Your task to perform on an android device: Do I have any events this weekend? Image 0: 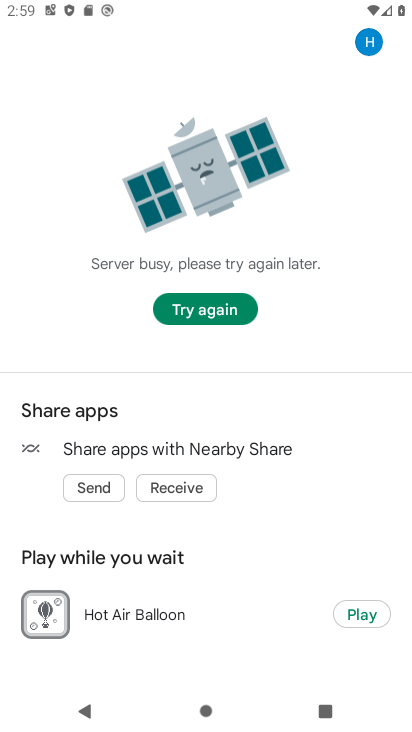
Step 0: press home button
Your task to perform on an android device: Do I have any events this weekend? Image 1: 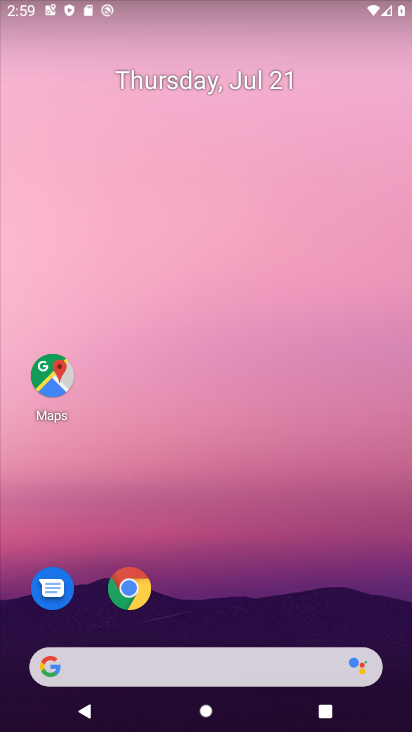
Step 1: drag from (215, 552) to (170, 95)
Your task to perform on an android device: Do I have any events this weekend? Image 2: 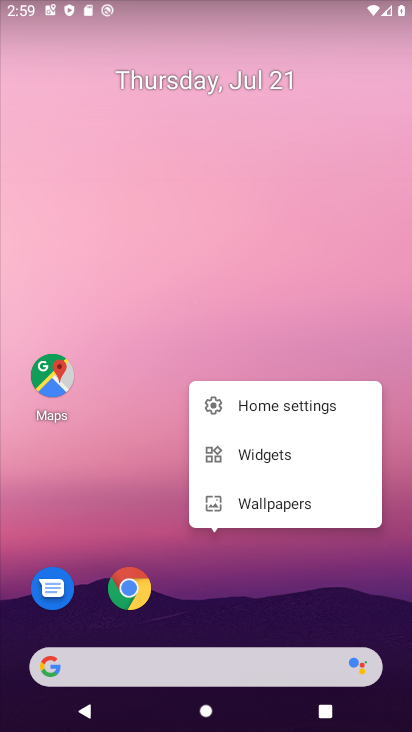
Step 2: click (134, 301)
Your task to perform on an android device: Do I have any events this weekend? Image 3: 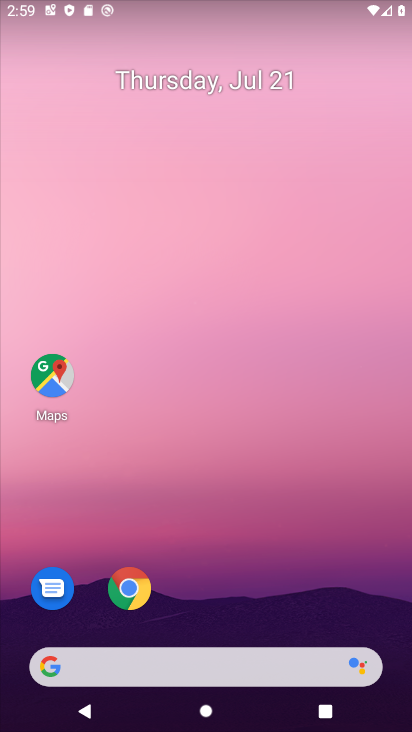
Step 3: drag from (232, 561) to (266, 93)
Your task to perform on an android device: Do I have any events this weekend? Image 4: 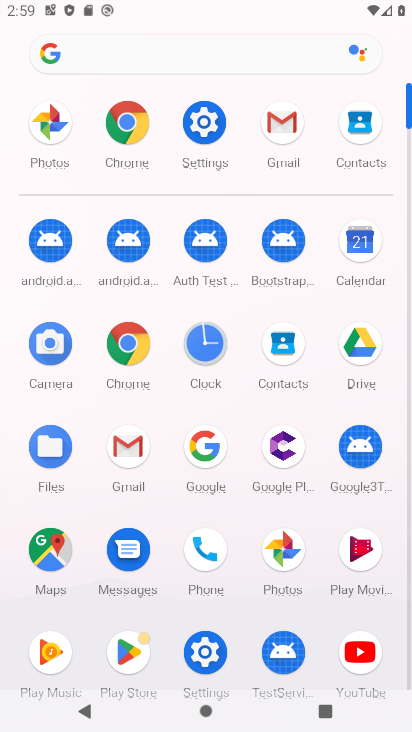
Step 4: click (364, 239)
Your task to perform on an android device: Do I have any events this weekend? Image 5: 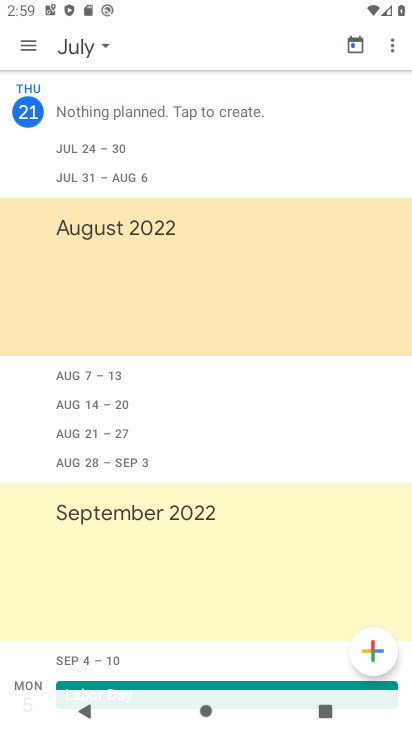
Step 5: click (30, 41)
Your task to perform on an android device: Do I have any events this weekend? Image 6: 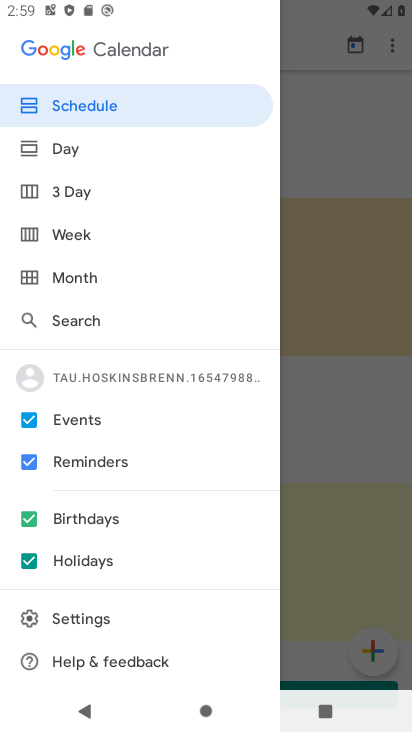
Step 6: click (79, 231)
Your task to perform on an android device: Do I have any events this weekend? Image 7: 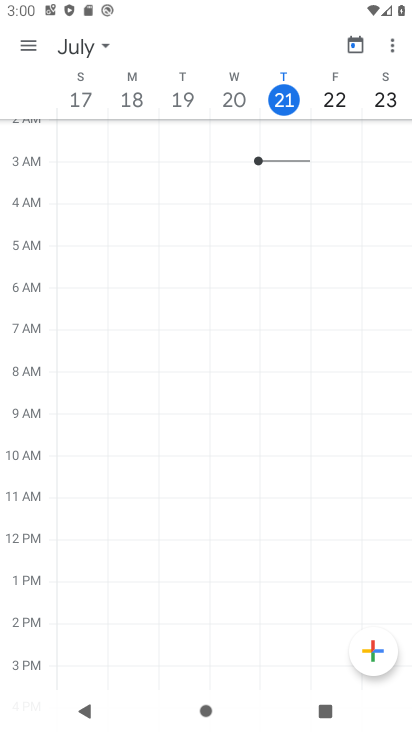
Step 7: task complete